Your task to perform on an android device: turn on wifi Image 0: 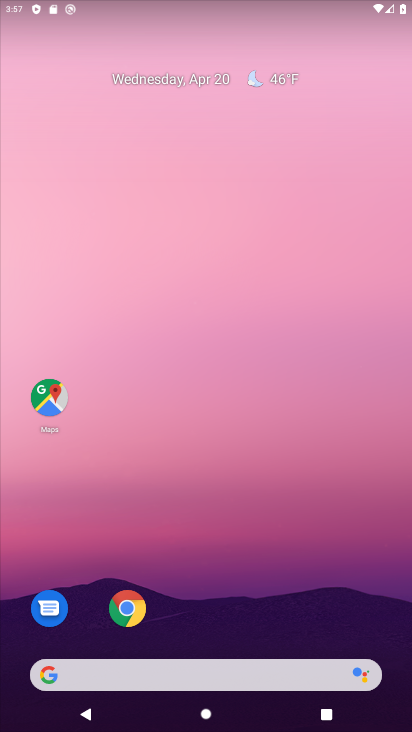
Step 0: drag from (212, 645) to (108, 2)
Your task to perform on an android device: turn on wifi Image 1: 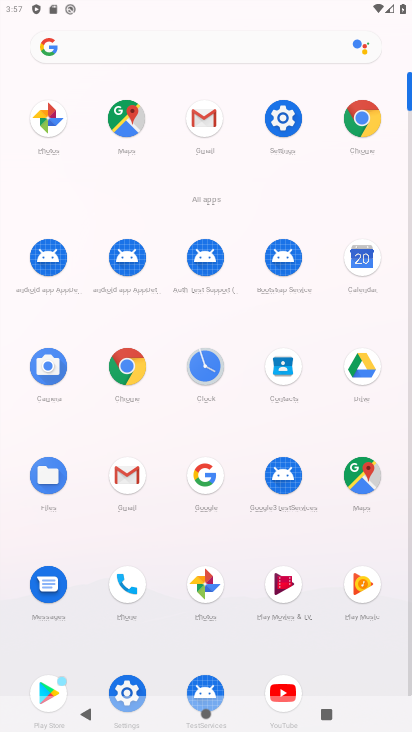
Step 1: click (286, 120)
Your task to perform on an android device: turn on wifi Image 2: 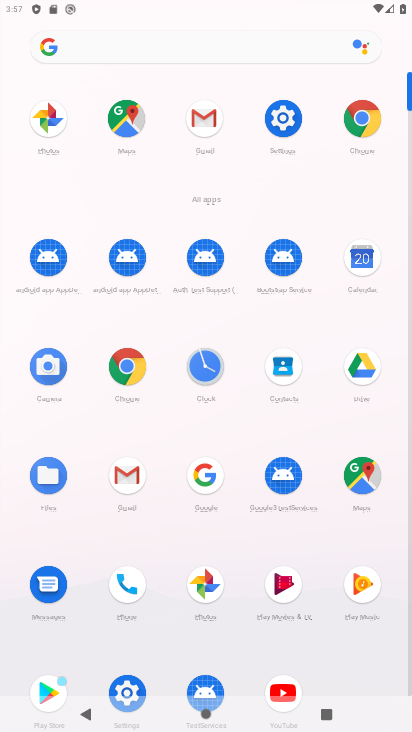
Step 2: click (286, 120)
Your task to perform on an android device: turn on wifi Image 3: 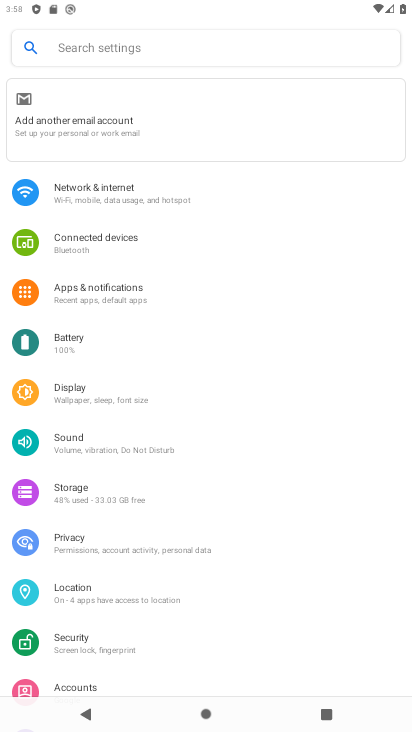
Step 3: click (119, 184)
Your task to perform on an android device: turn on wifi Image 4: 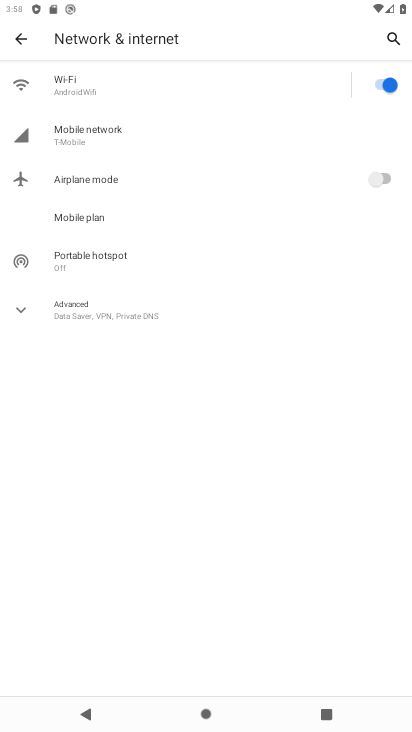
Step 4: task complete